Your task to perform on an android device: open app "PlayWell" (install if not already installed) and enter user name: "metric@gmail.com" and password: "bumblebee" Image 0: 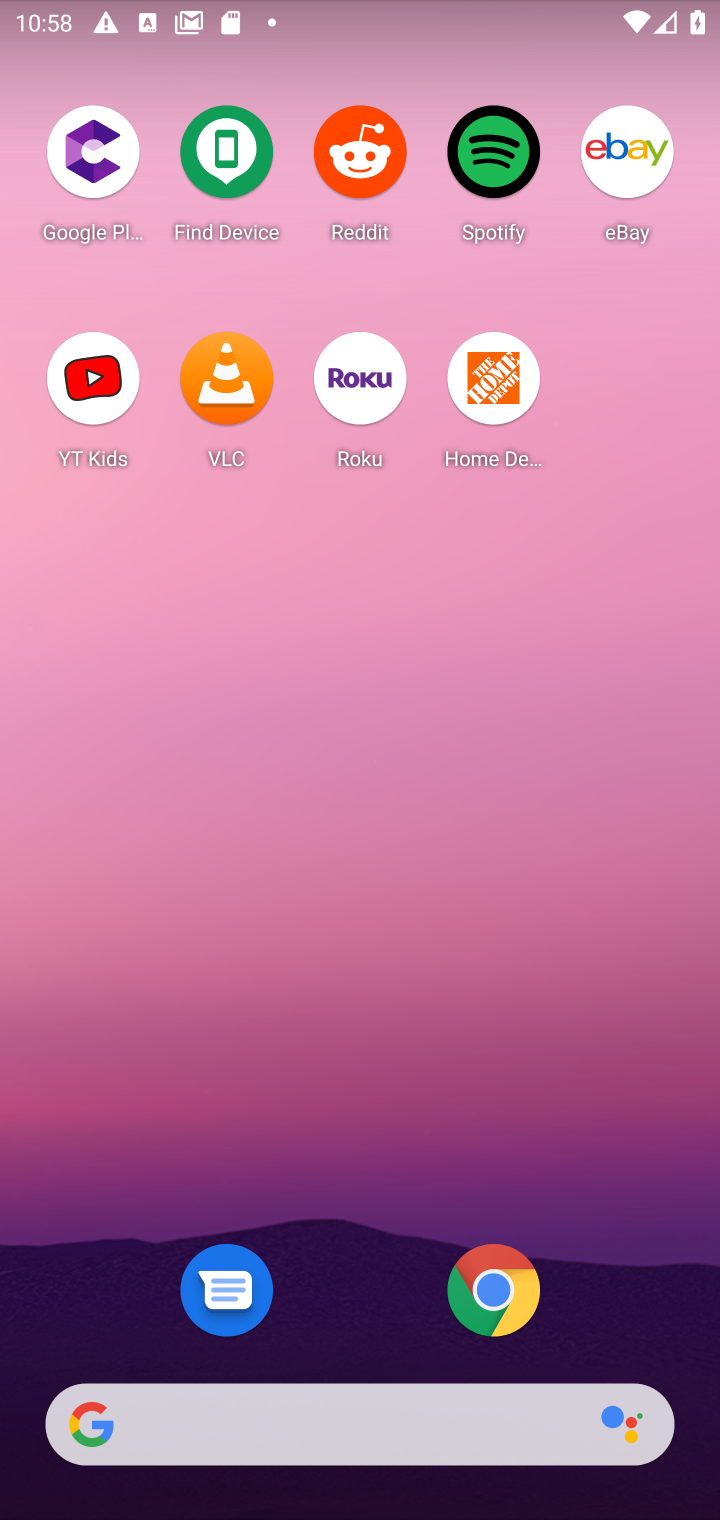
Step 0: drag from (353, 1047) to (330, 32)
Your task to perform on an android device: open app "PlayWell" (install if not already installed) and enter user name: "metric@gmail.com" and password: "bumblebee" Image 1: 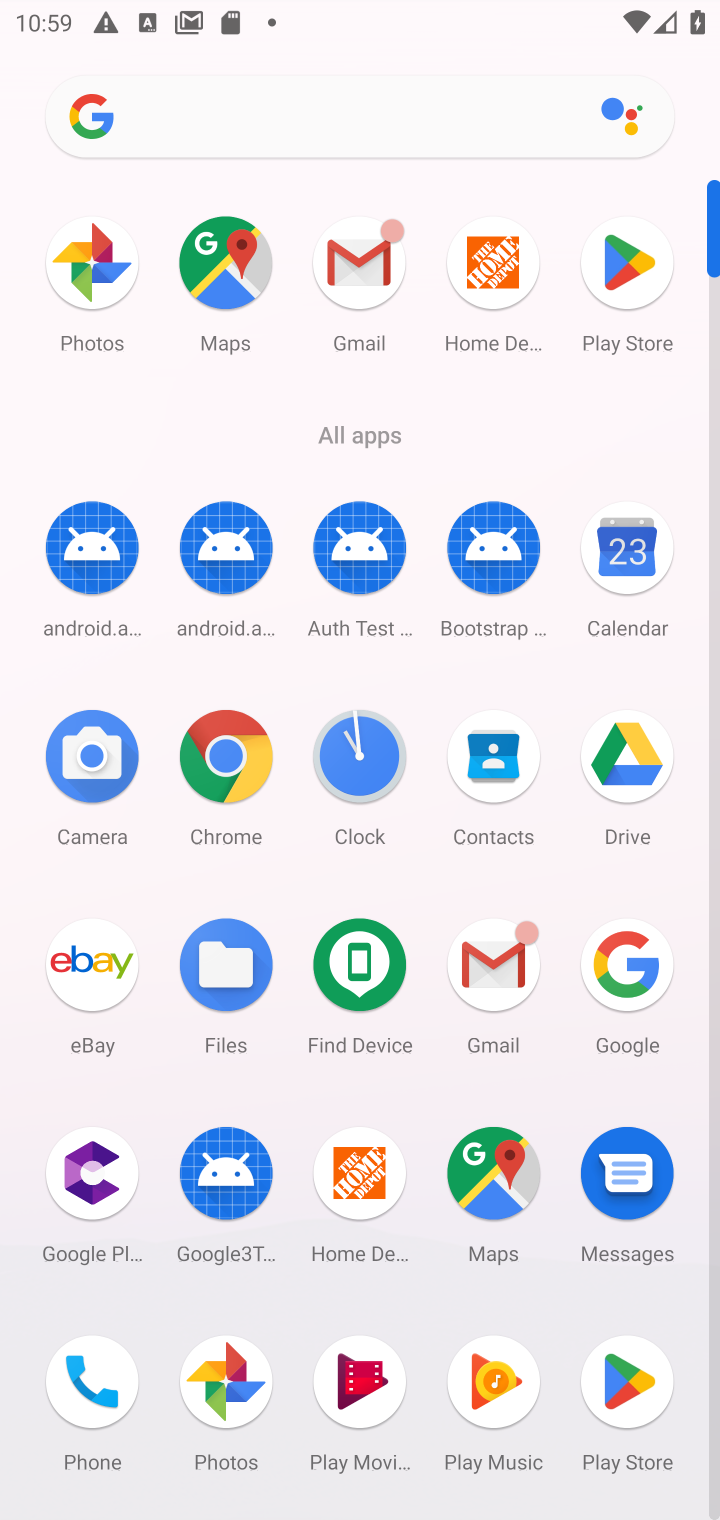
Step 1: click (633, 256)
Your task to perform on an android device: open app "PlayWell" (install if not already installed) and enter user name: "metric@gmail.com" and password: "bumblebee" Image 2: 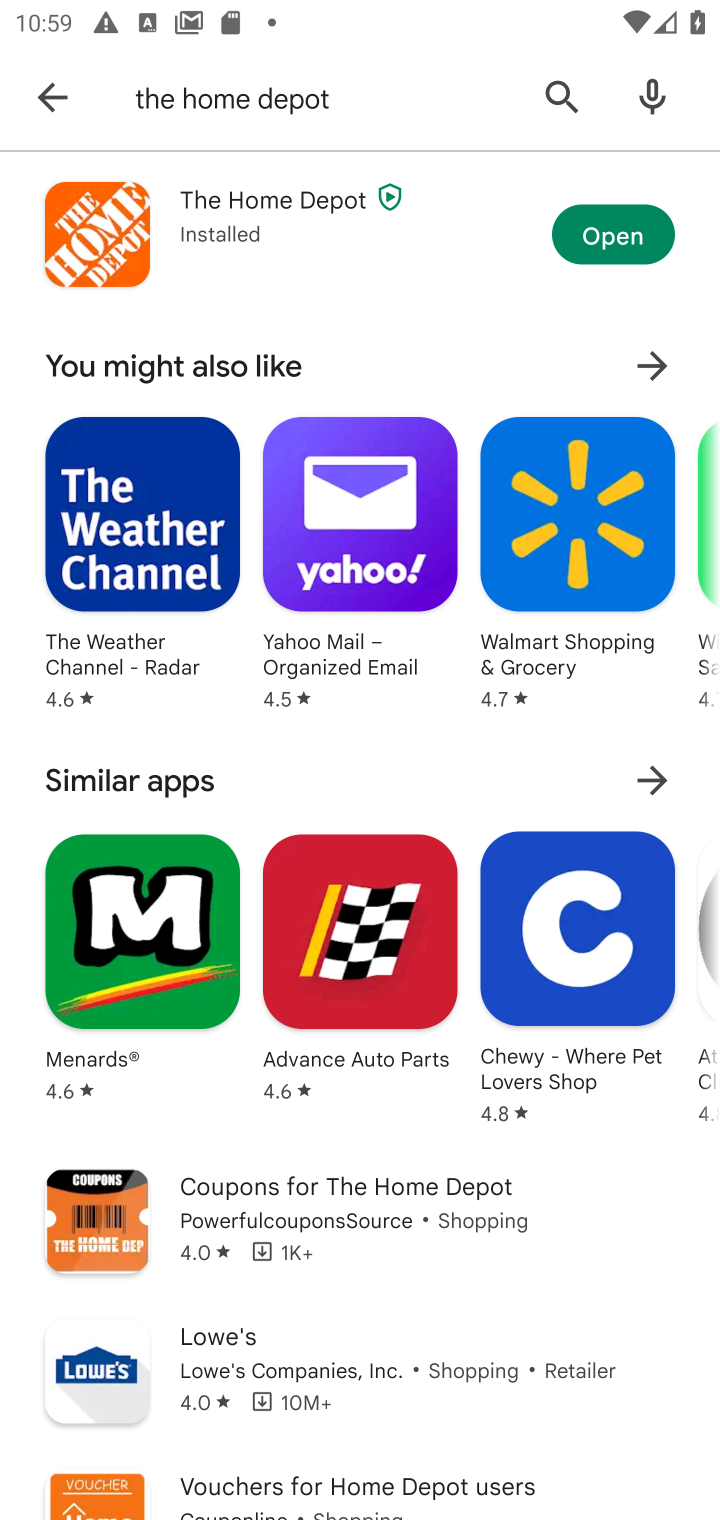
Step 2: click (552, 93)
Your task to perform on an android device: open app "PlayWell" (install if not already installed) and enter user name: "metric@gmail.com" and password: "bumblebee" Image 3: 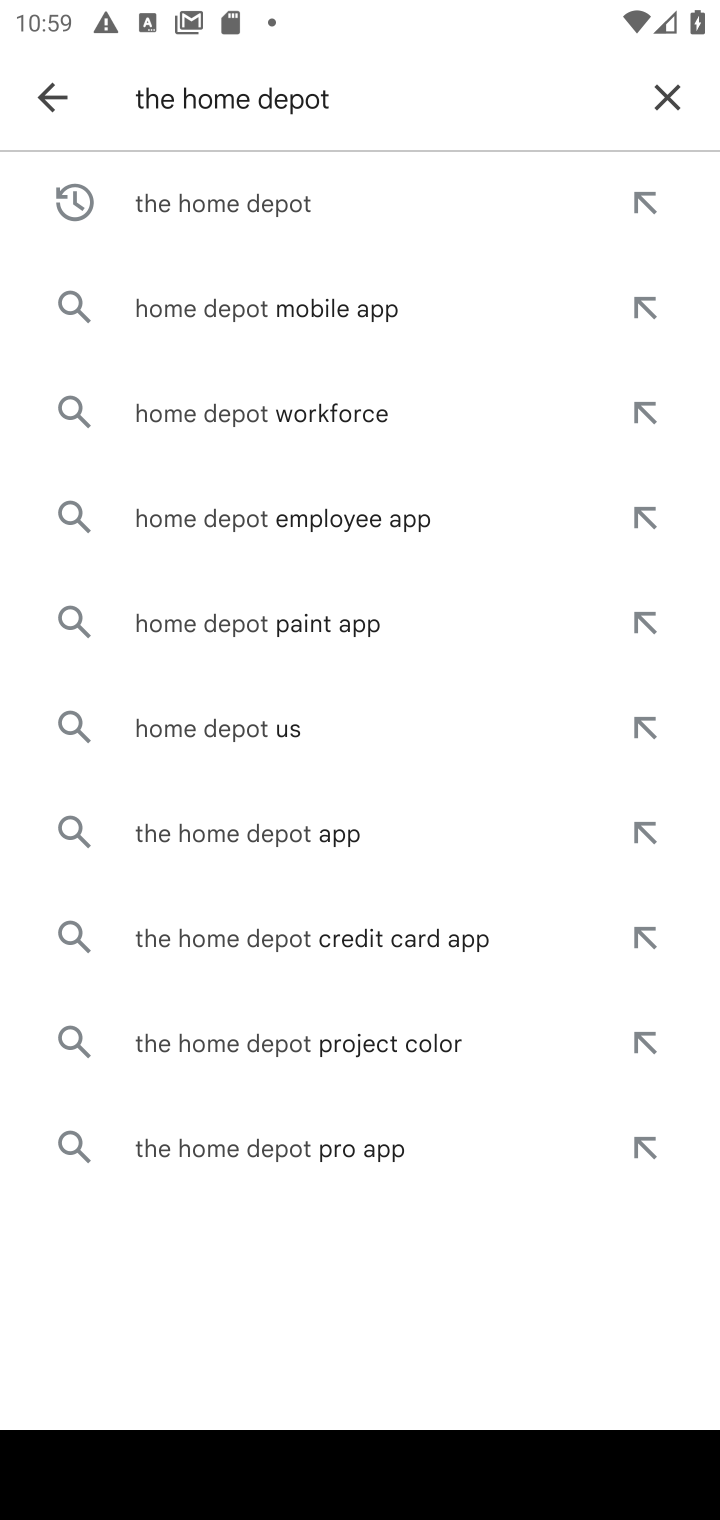
Step 3: click (663, 86)
Your task to perform on an android device: open app "PlayWell" (install if not already installed) and enter user name: "metric@gmail.com" and password: "bumblebee" Image 4: 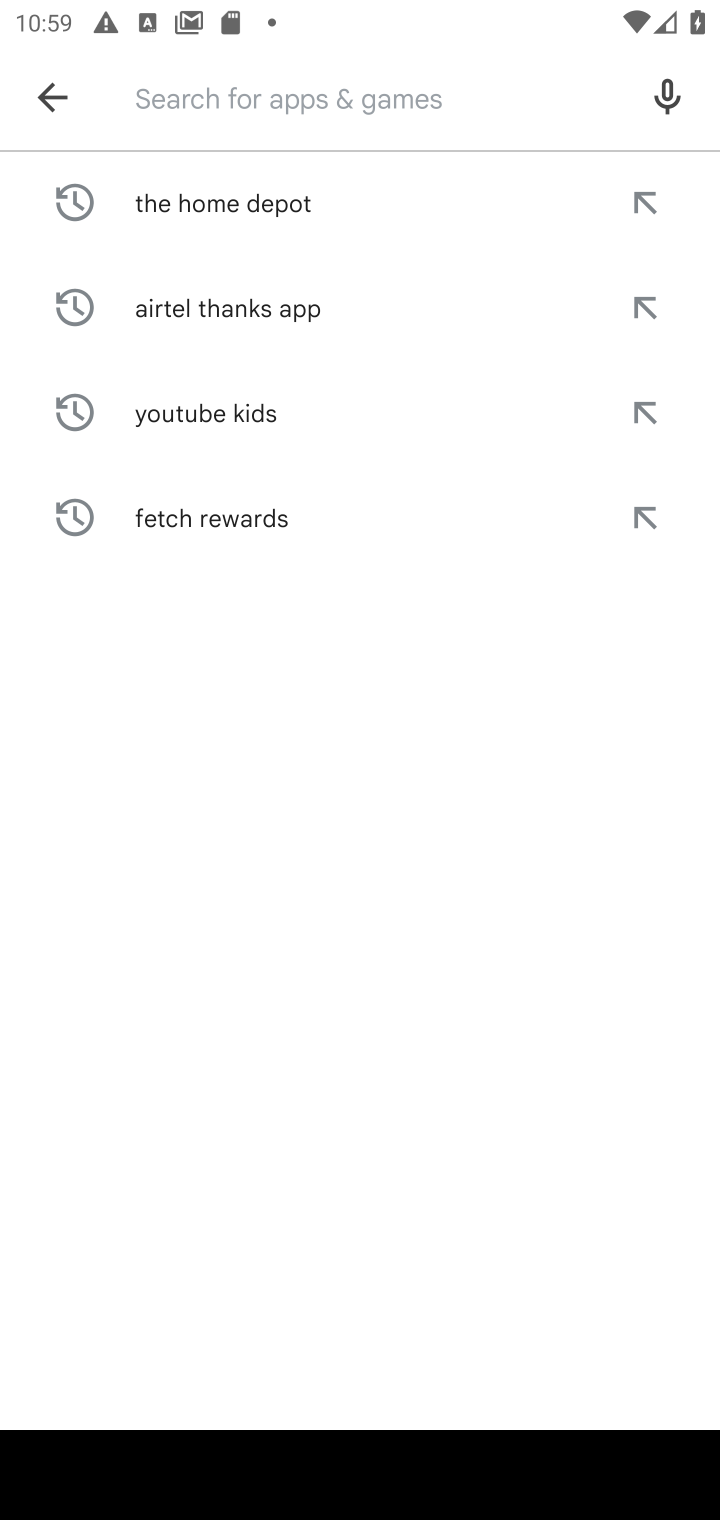
Step 4: type "PlayWell"
Your task to perform on an android device: open app "PlayWell" (install if not already installed) and enter user name: "metric@gmail.com" and password: "bumblebee" Image 5: 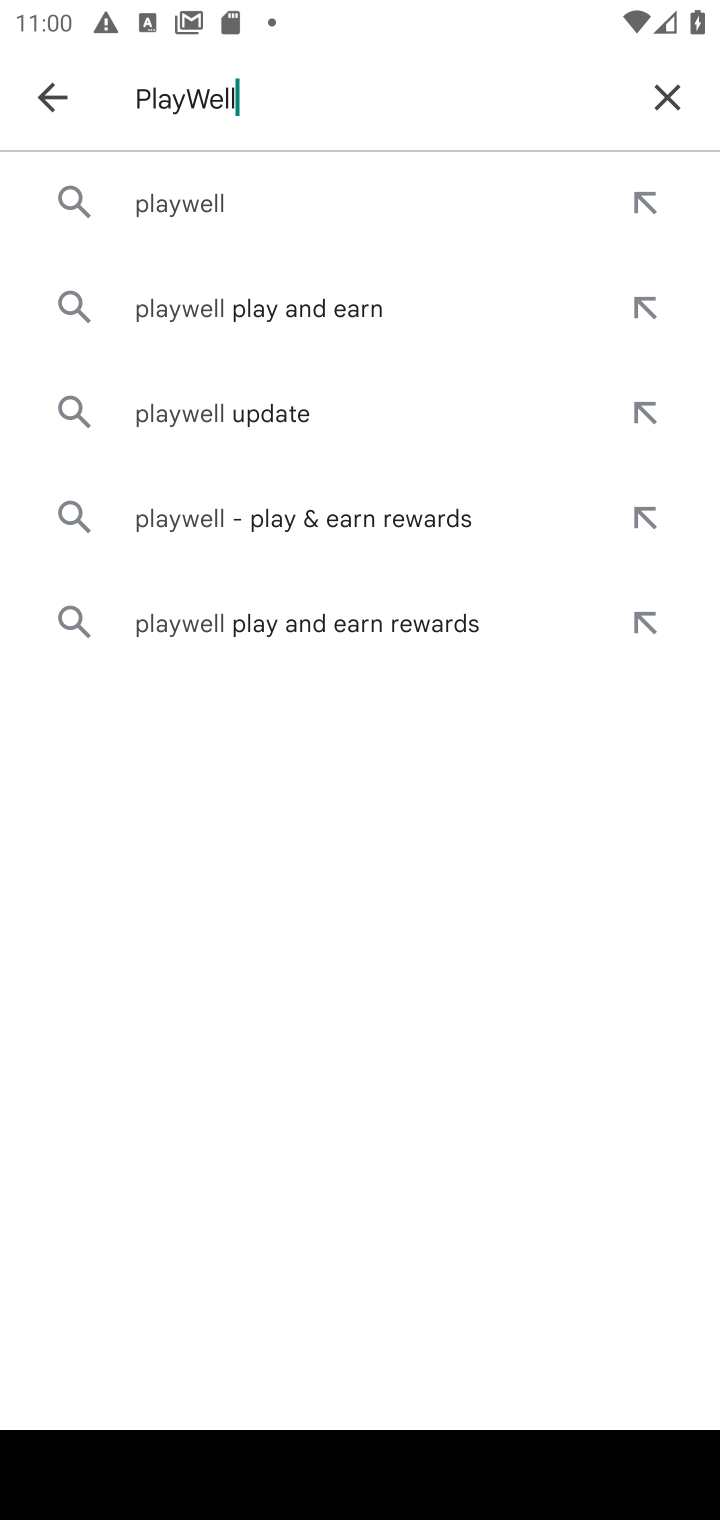
Step 5: click (167, 209)
Your task to perform on an android device: open app "PlayWell" (install if not already installed) and enter user name: "metric@gmail.com" and password: "bumblebee" Image 6: 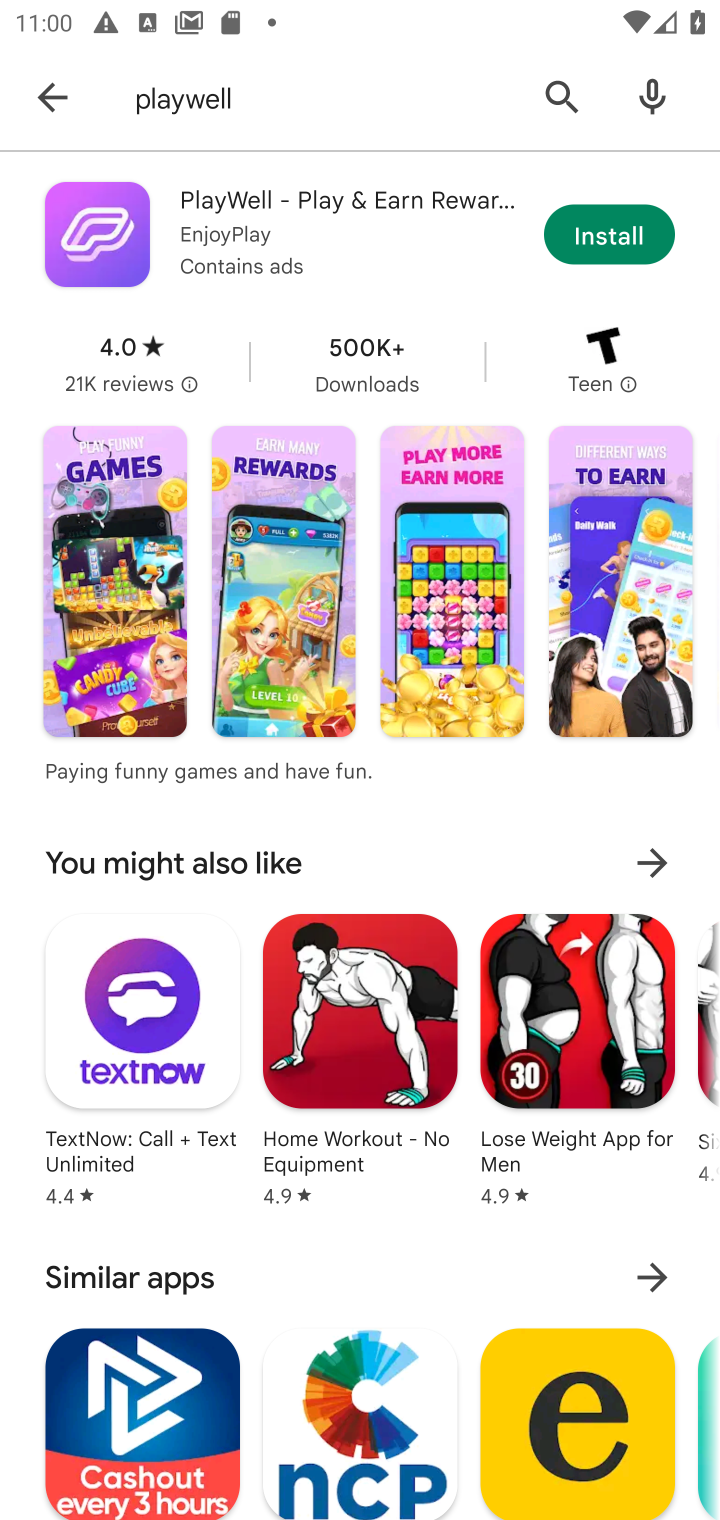
Step 6: click (615, 241)
Your task to perform on an android device: open app "PlayWell" (install if not already installed) and enter user name: "metric@gmail.com" and password: "bumblebee" Image 7: 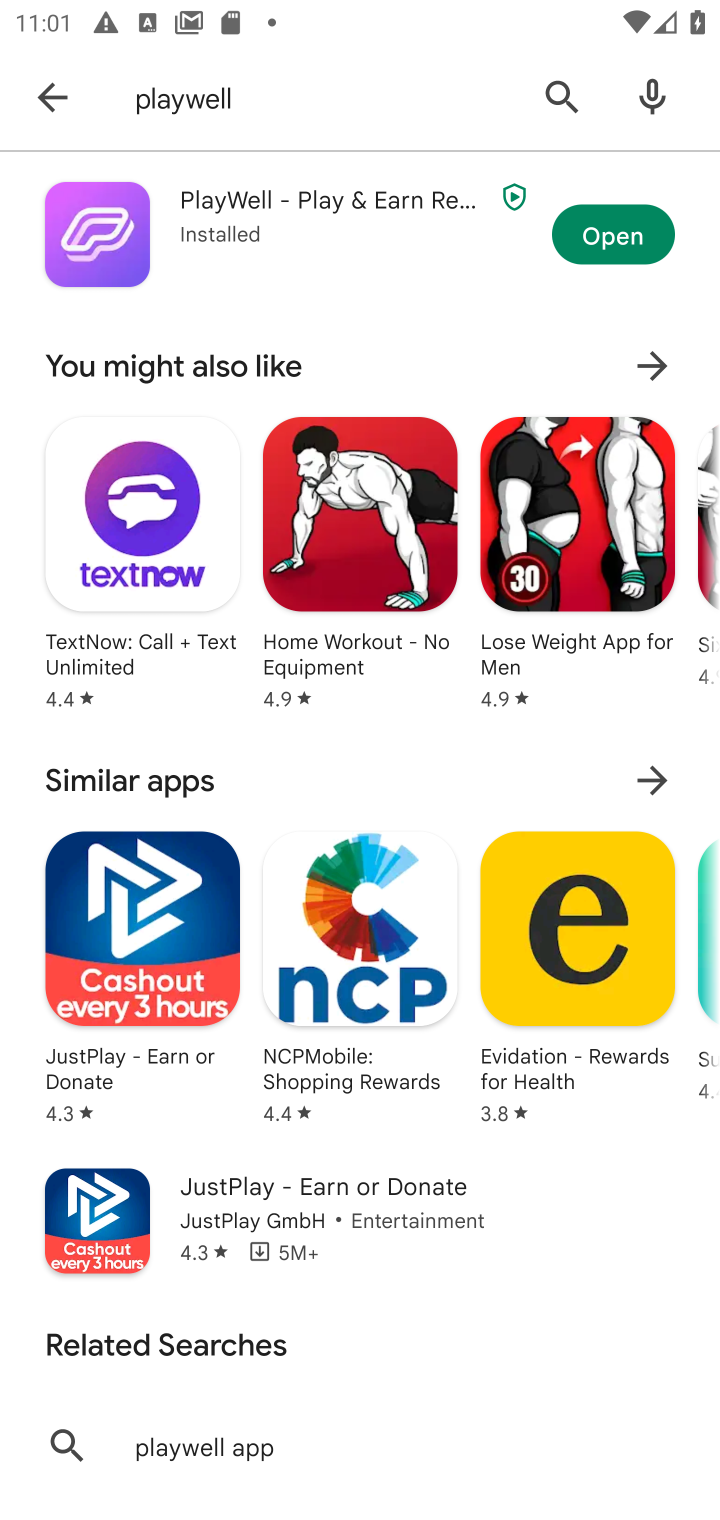
Step 7: click (609, 238)
Your task to perform on an android device: open app "PlayWell" (install if not already installed) and enter user name: "metric@gmail.com" and password: "bumblebee" Image 8: 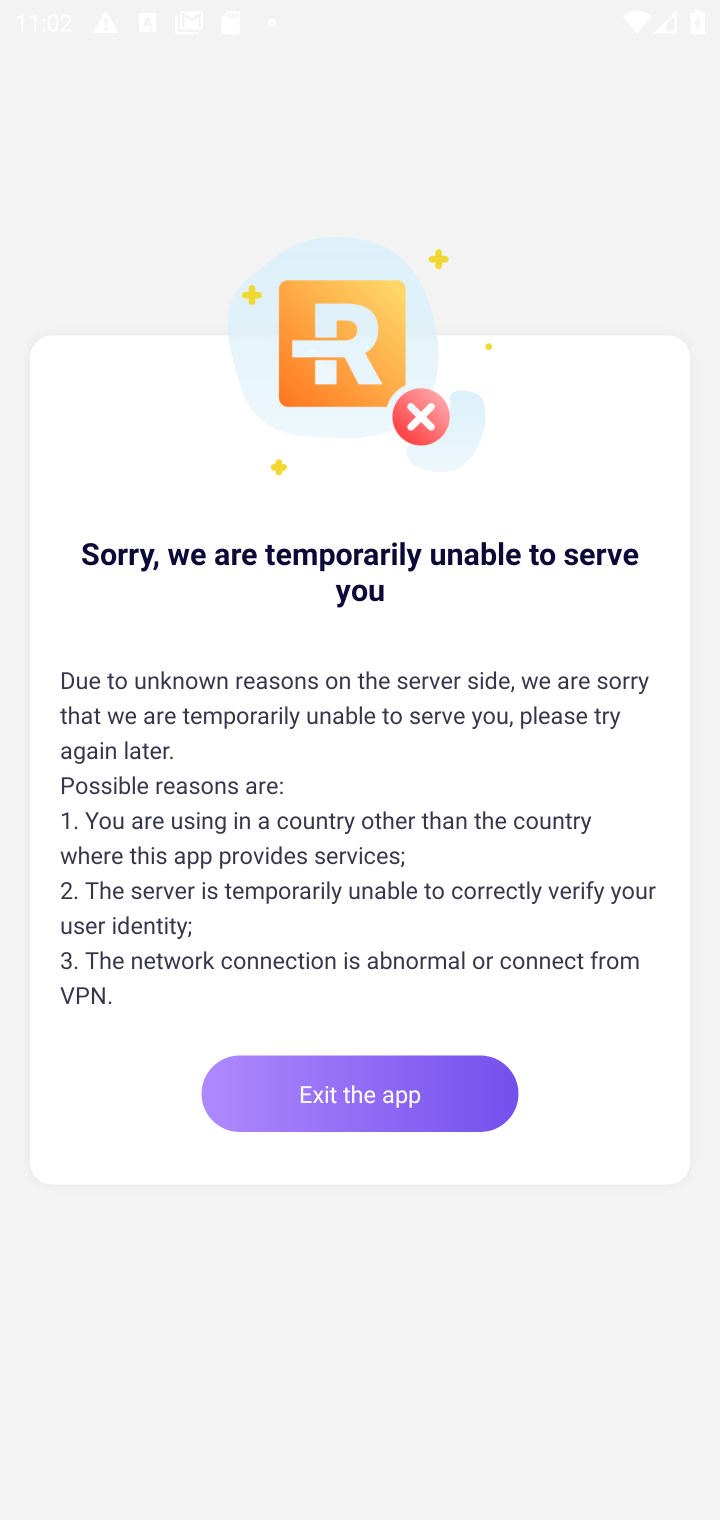
Step 8: task complete